Your task to perform on an android device: Turn on the flashlight Image 0: 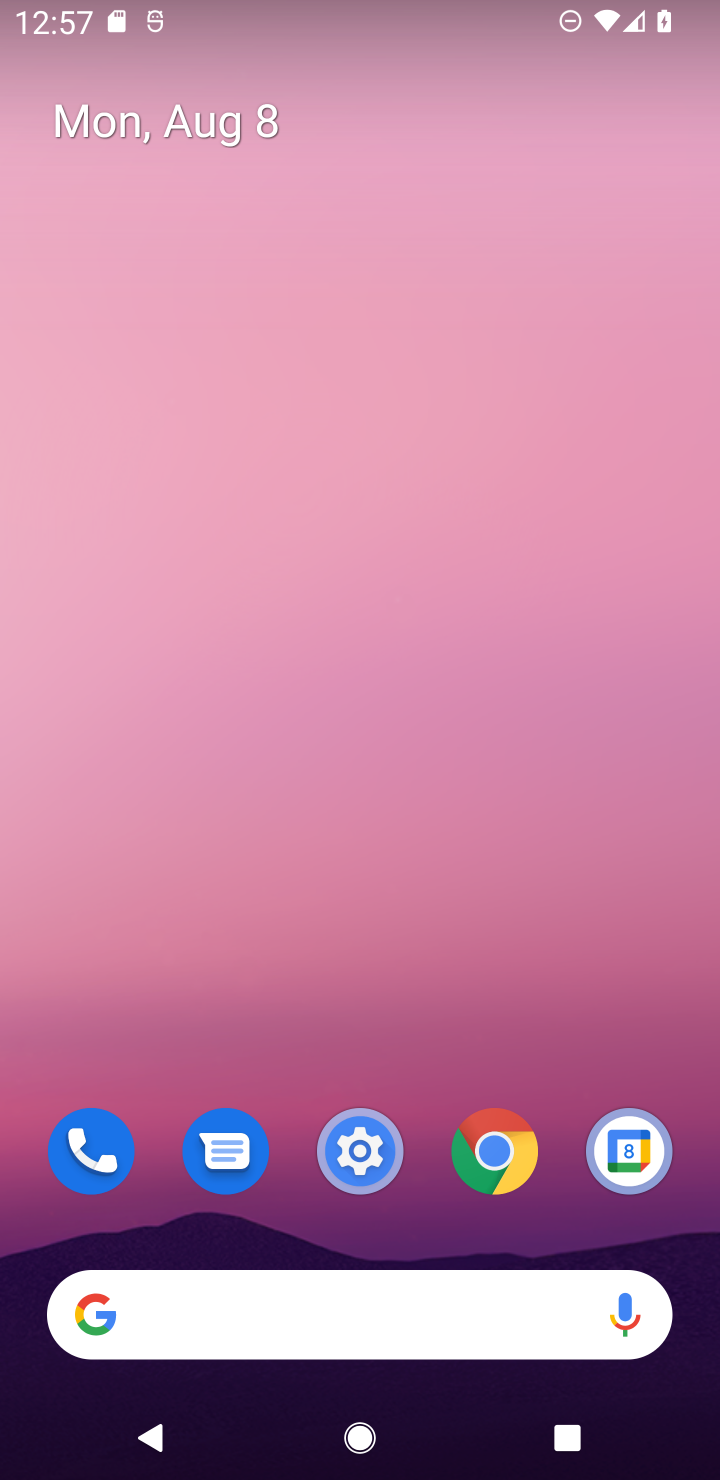
Step 0: drag from (331, 74) to (345, 1267)
Your task to perform on an android device: Turn on the flashlight Image 1: 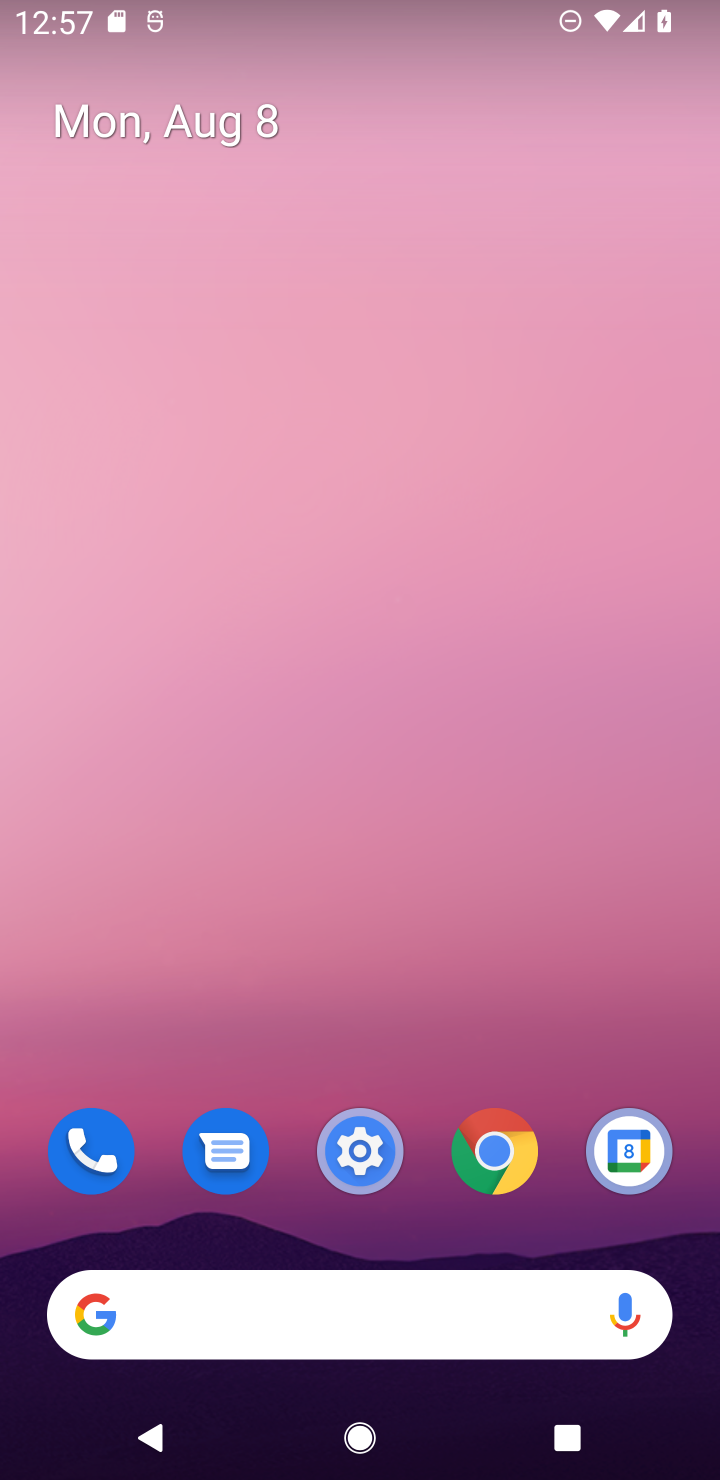
Step 1: drag from (383, 17) to (422, 1303)
Your task to perform on an android device: Turn on the flashlight Image 2: 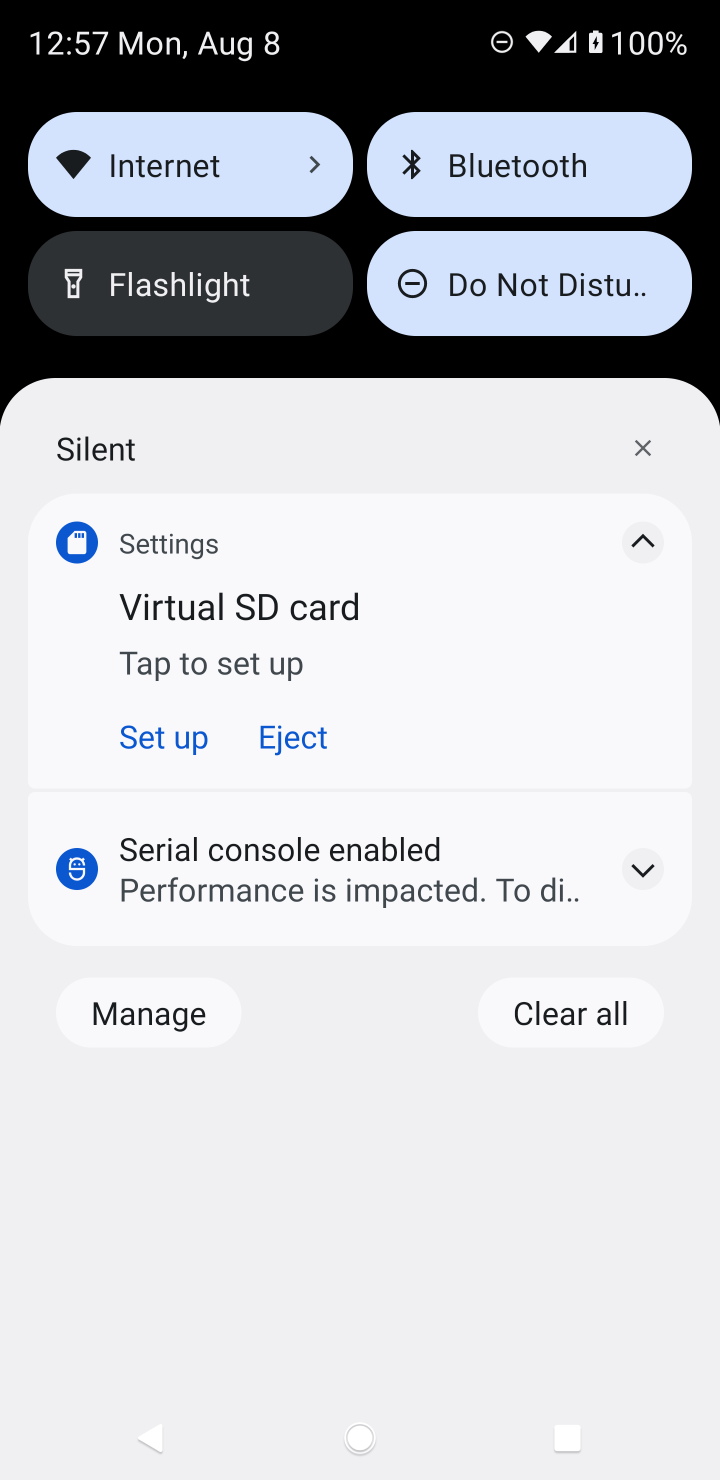
Step 2: click (207, 283)
Your task to perform on an android device: Turn on the flashlight Image 3: 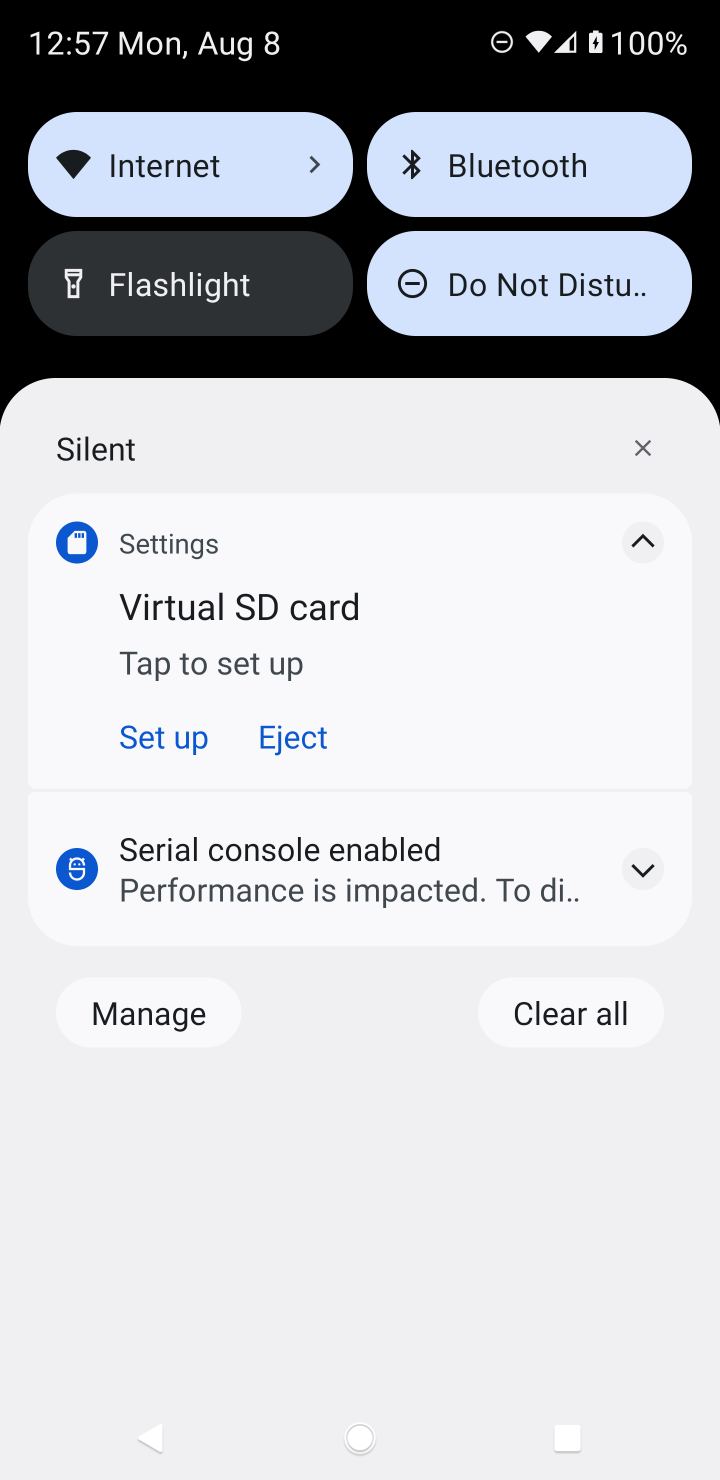
Step 3: task complete